Your task to perform on an android device: remove spam from my inbox in the gmail app Image 0: 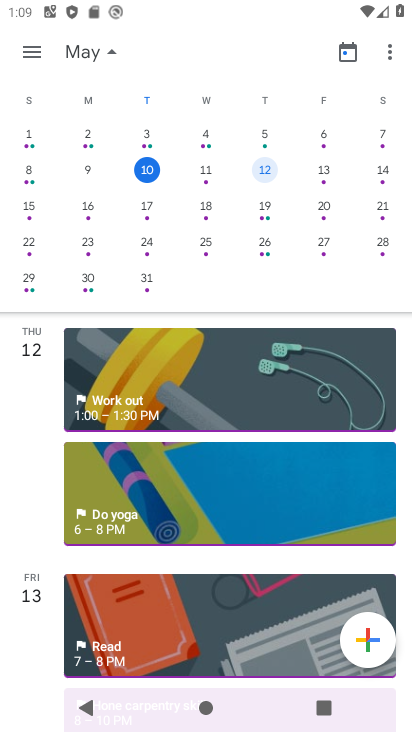
Step 0: press home button
Your task to perform on an android device: remove spam from my inbox in the gmail app Image 1: 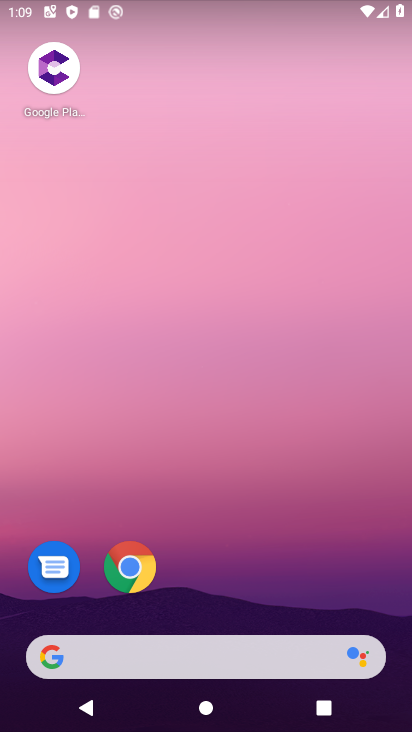
Step 1: drag from (332, 524) to (241, 127)
Your task to perform on an android device: remove spam from my inbox in the gmail app Image 2: 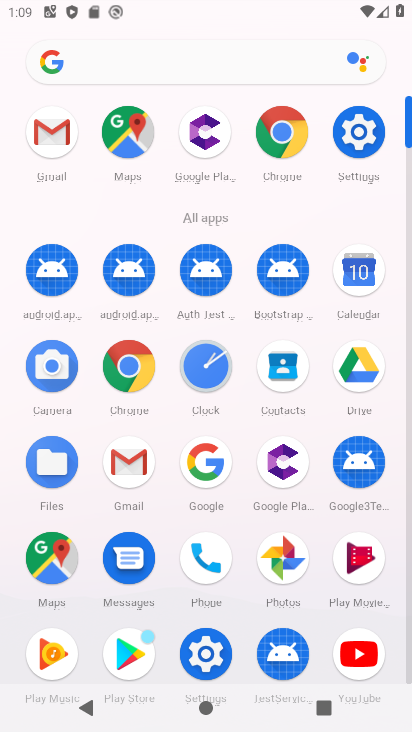
Step 2: click (61, 130)
Your task to perform on an android device: remove spam from my inbox in the gmail app Image 3: 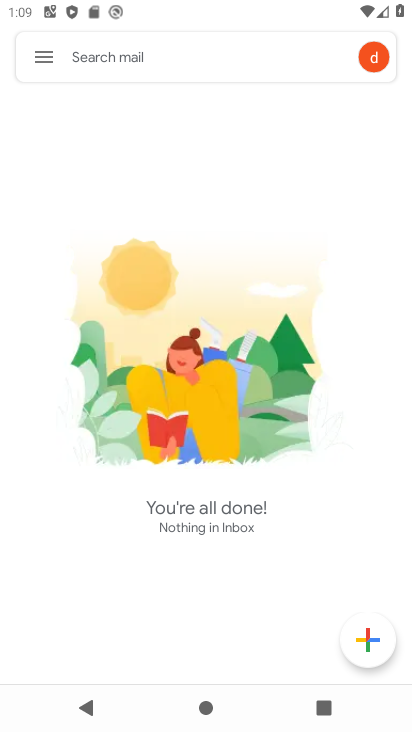
Step 3: click (51, 66)
Your task to perform on an android device: remove spam from my inbox in the gmail app Image 4: 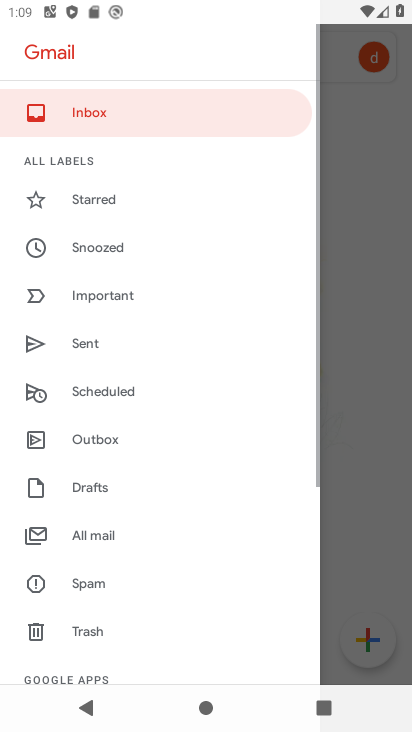
Step 4: click (88, 112)
Your task to perform on an android device: remove spam from my inbox in the gmail app Image 5: 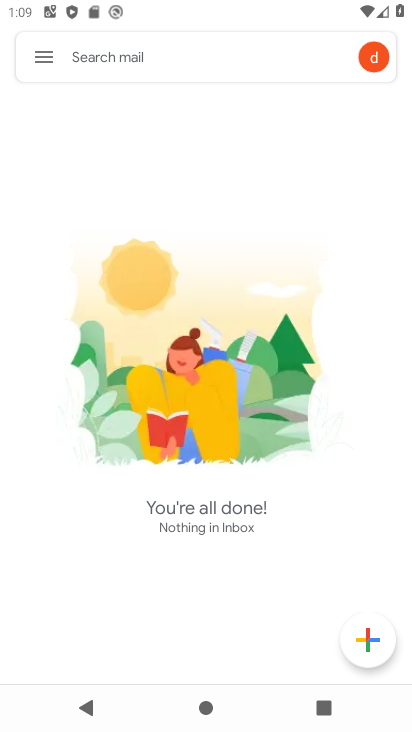
Step 5: click (54, 75)
Your task to perform on an android device: remove spam from my inbox in the gmail app Image 6: 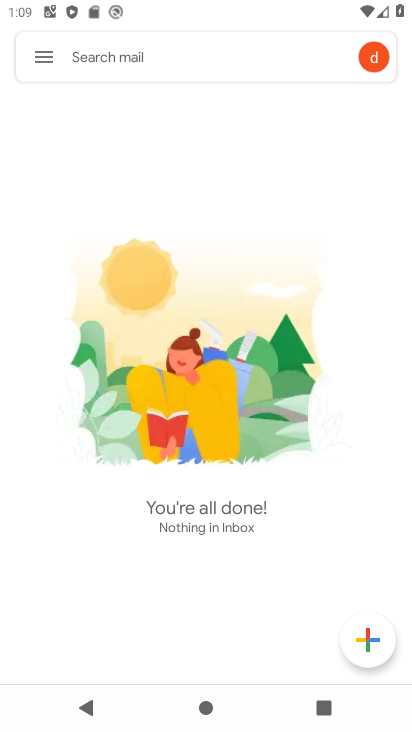
Step 6: click (41, 62)
Your task to perform on an android device: remove spam from my inbox in the gmail app Image 7: 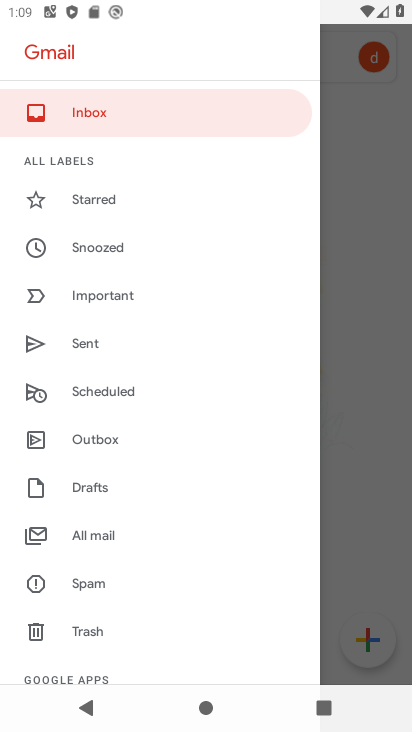
Step 7: click (141, 586)
Your task to perform on an android device: remove spam from my inbox in the gmail app Image 8: 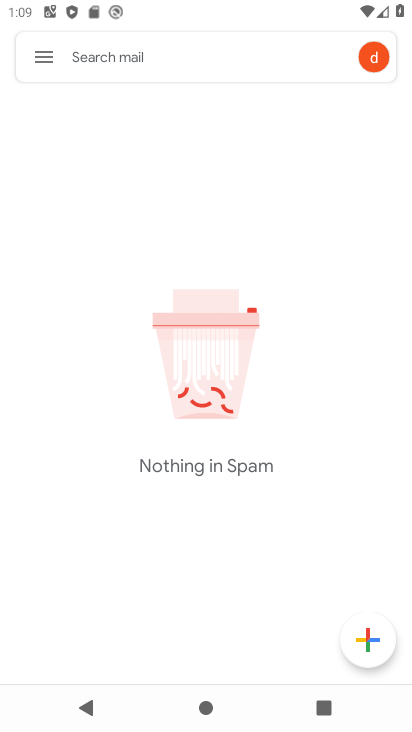
Step 8: task complete